Your task to perform on an android device: turn off translation in the chrome app Image 0: 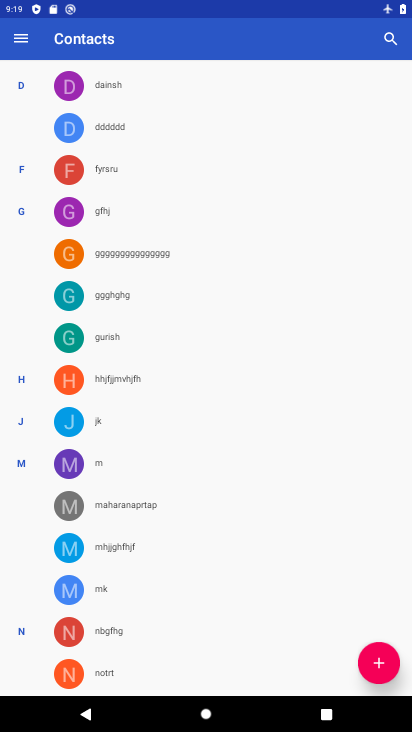
Step 0: press home button
Your task to perform on an android device: turn off translation in the chrome app Image 1: 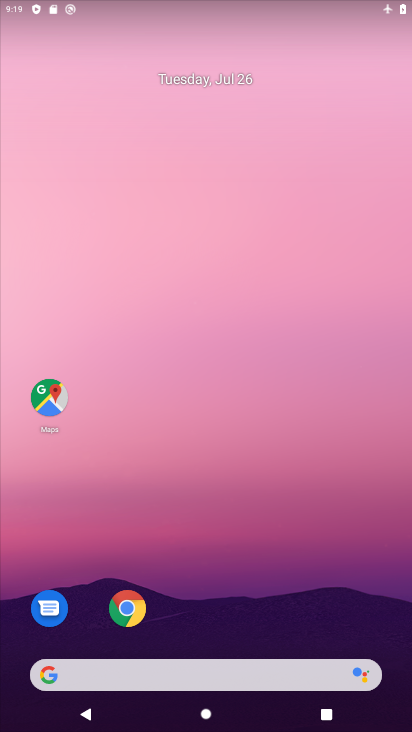
Step 1: click (138, 615)
Your task to perform on an android device: turn off translation in the chrome app Image 2: 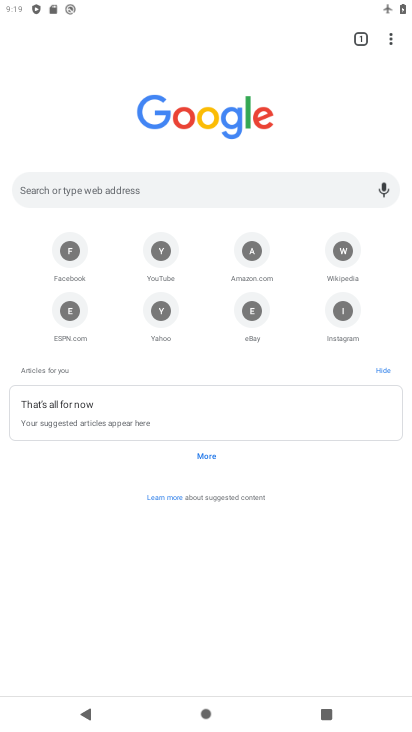
Step 2: click (392, 38)
Your task to perform on an android device: turn off translation in the chrome app Image 3: 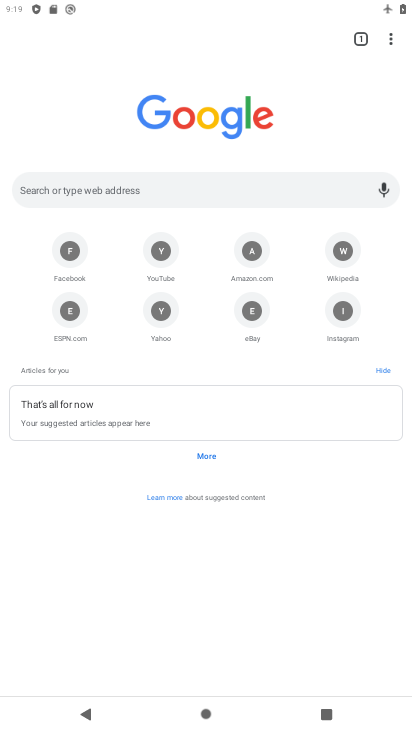
Step 3: click (394, 31)
Your task to perform on an android device: turn off translation in the chrome app Image 4: 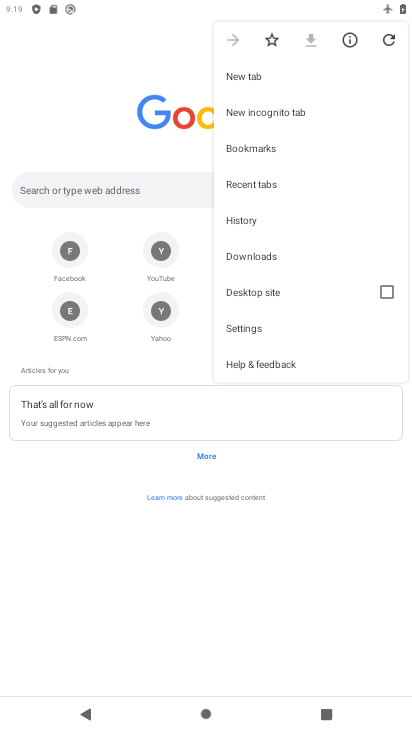
Step 4: click (259, 332)
Your task to perform on an android device: turn off translation in the chrome app Image 5: 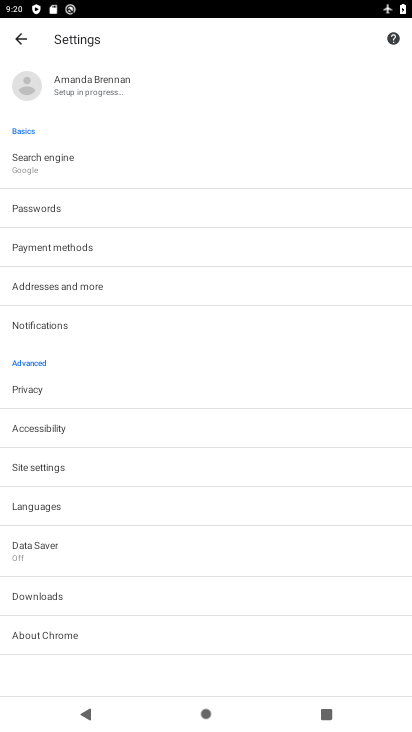
Step 5: click (62, 520)
Your task to perform on an android device: turn off translation in the chrome app Image 6: 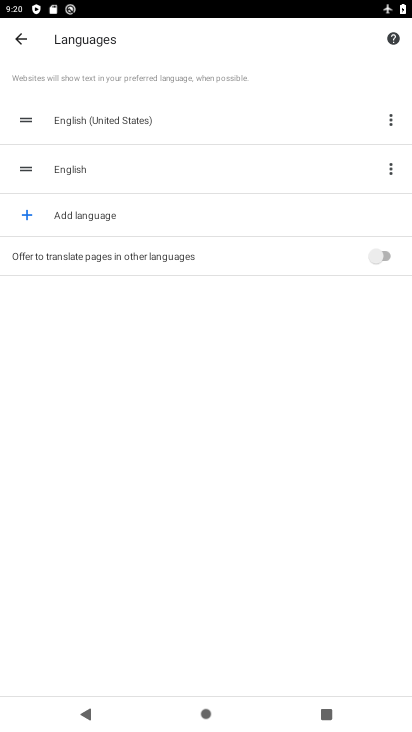
Step 6: task complete